Your task to perform on an android device: turn off airplane mode Image 0: 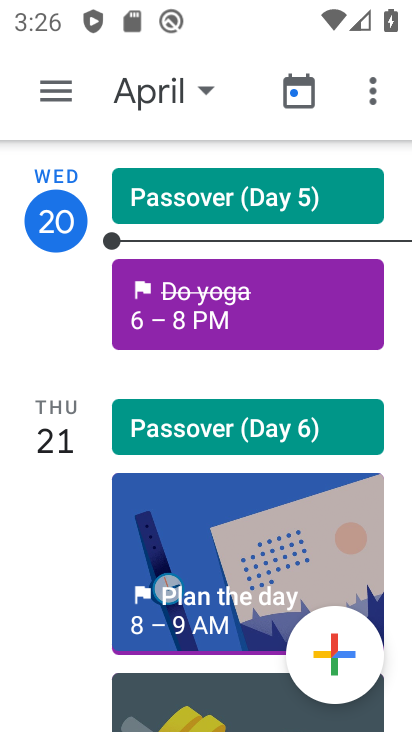
Step 0: press home button
Your task to perform on an android device: turn off airplane mode Image 1: 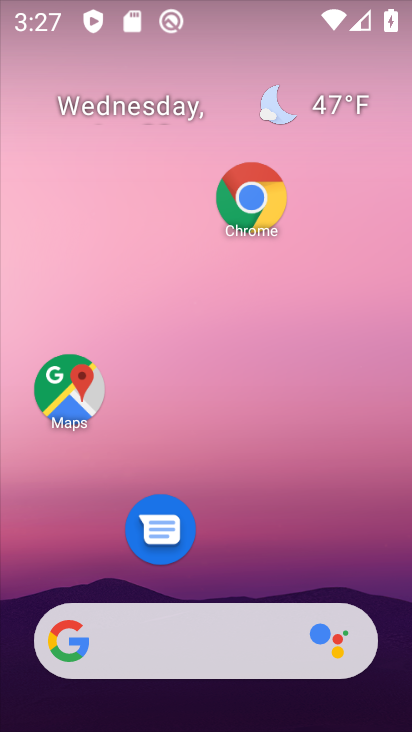
Step 1: drag from (239, 534) to (226, 74)
Your task to perform on an android device: turn off airplane mode Image 2: 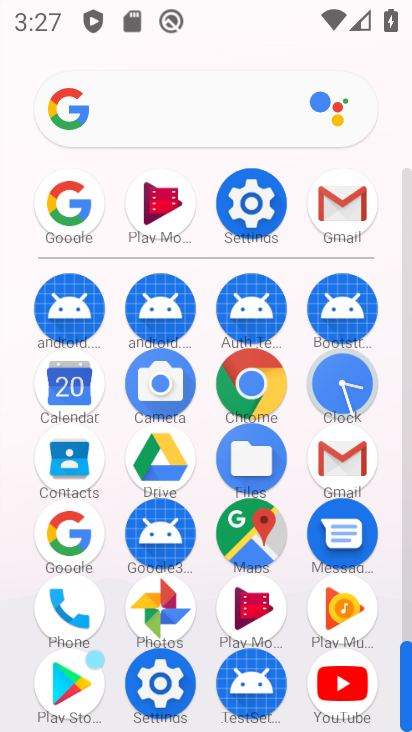
Step 2: click (254, 206)
Your task to perform on an android device: turn off airplane mode Image 3: 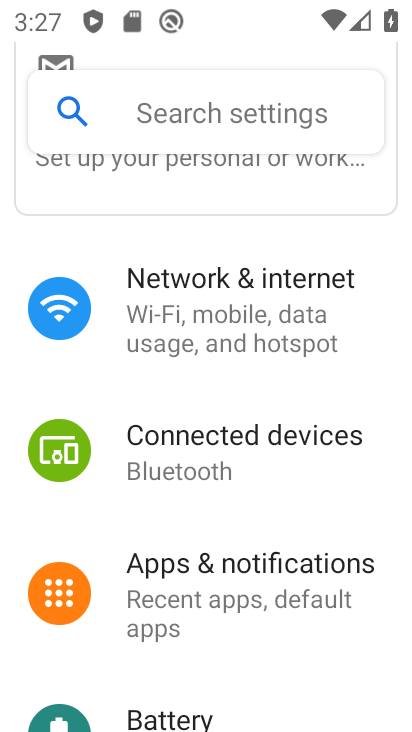
Step 3: click (203, 304)
Your task to perform on an android device: turn off airplane mode Image 4: 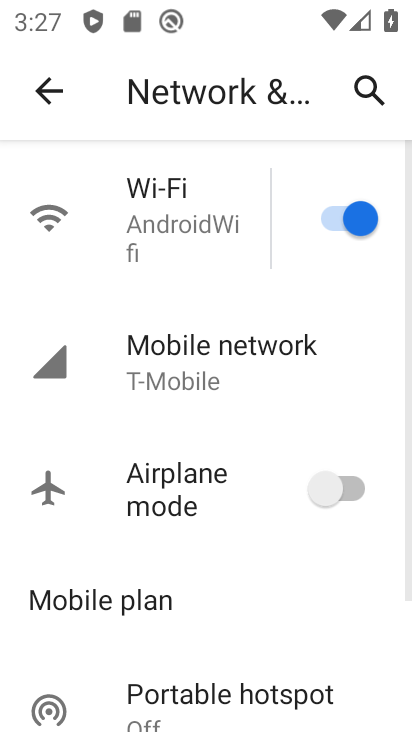
Step 4: task complete